Your task to perform on an android device: Search for Italian restaurants on Maps Image 0: 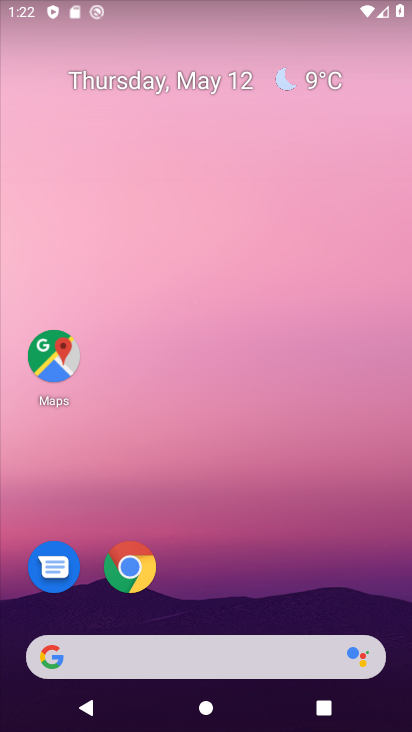
Step 0: click (46, 361)
Your task to perform on an android device: Search for Italian restaurants on Maps Image 1: 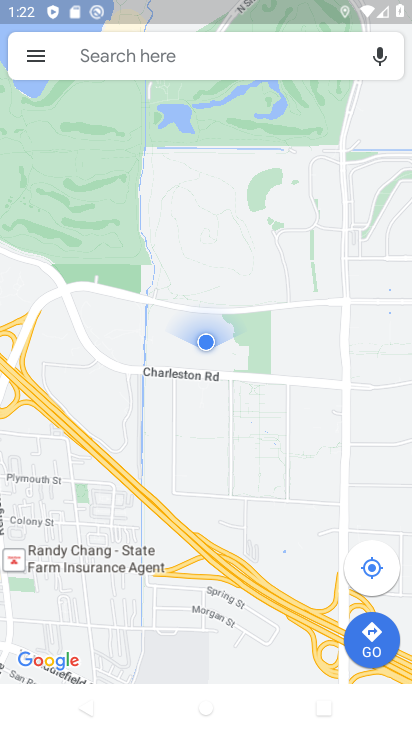
Step 1: click (180, 56)
Your task to perform on an android device: Search for Italian restaurants on Maps Image 2: 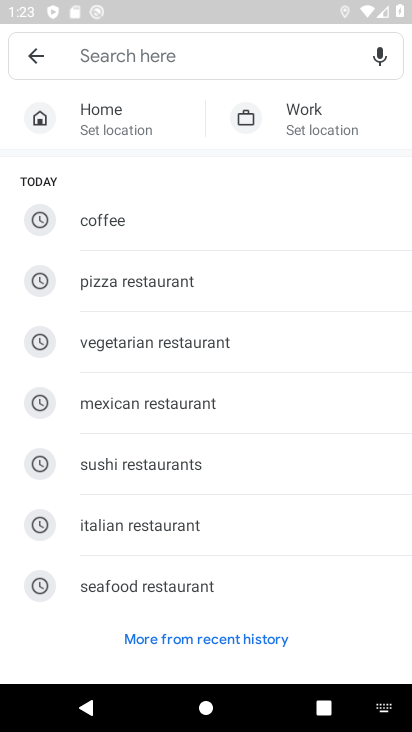
Step 2: click (136, 518)
Your task to perform on an android device: Search for Italian restaurants on Maps Image 3: 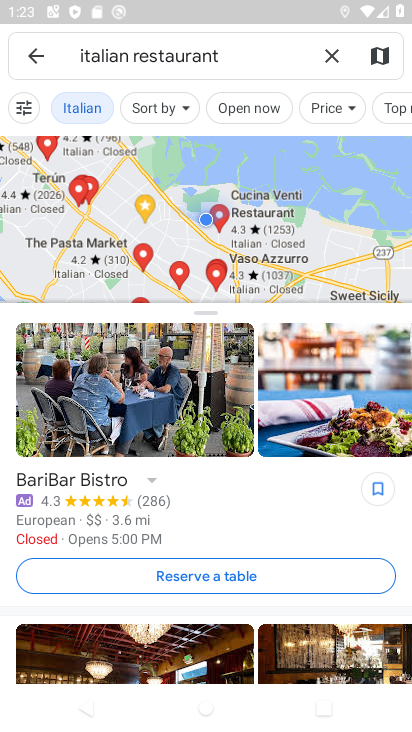
Step 3: task complete